Your task to perform on an android device: Open calendar and show me the third week of next month Image 0: 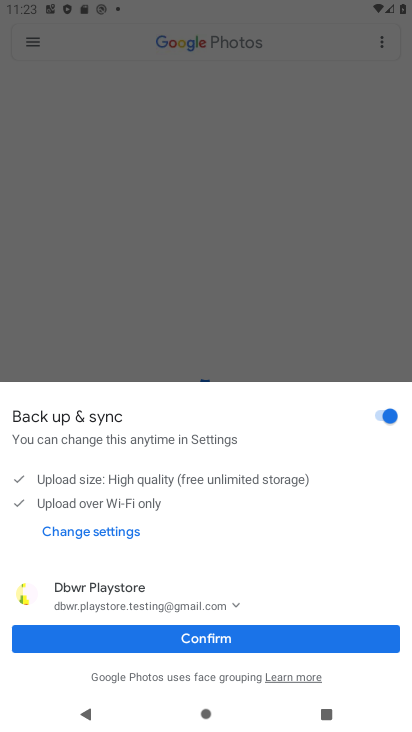
Step 0: press home button
Your task to perform on an android device: Open calendar and show me the third week of next month Image 1: 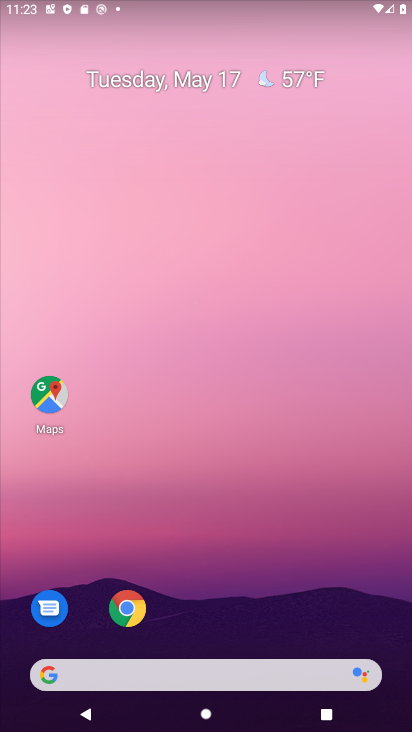
Step 1: drag from (196, 627) to (288, 70)
Your task to perform on an android device: Open calendar and show me the third week of next month Image 2: 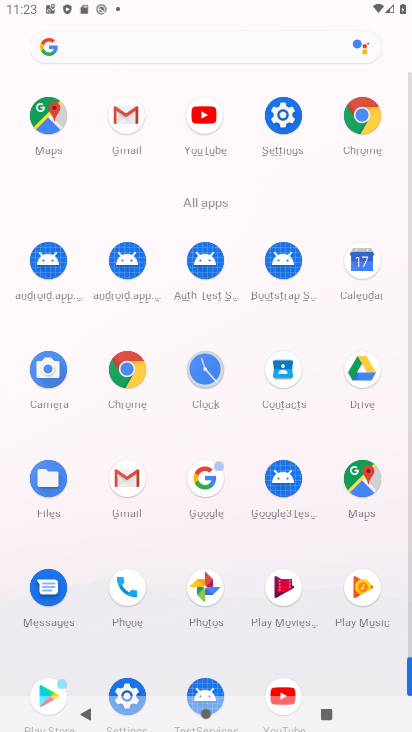
Step 2: click (372, 264)
Your task to perform on an android device: Open calendar and show me the third week of next month Image 3: 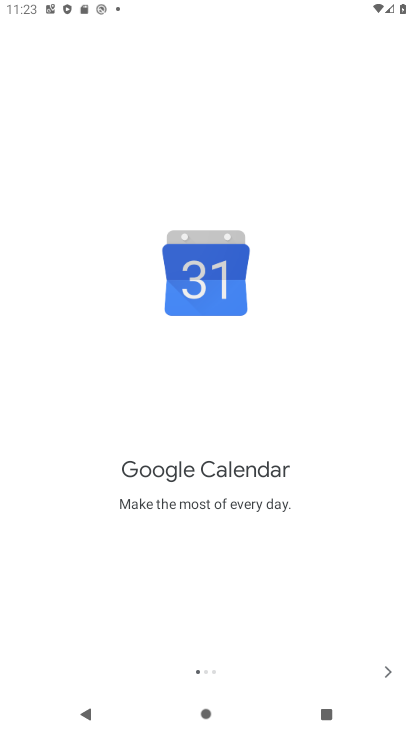
Step 3: click (386, 672)
Your task to perform on an android device: Open calendar and show me the third week of next month Image 4: 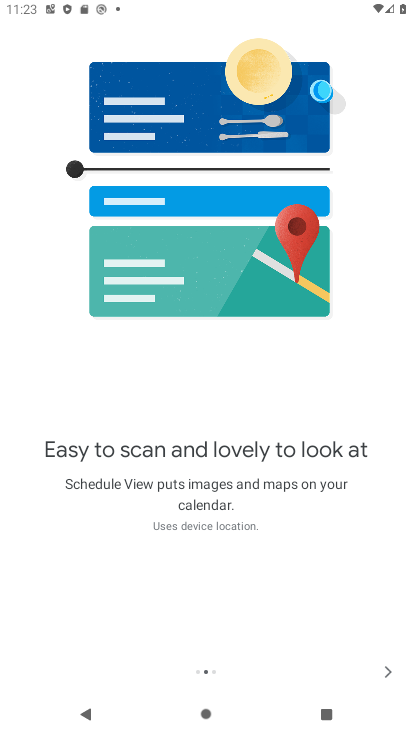
Step 4: click (386, 672)
Your task to perform on an android device: Open calendar and show me the third week of next month Image 5: 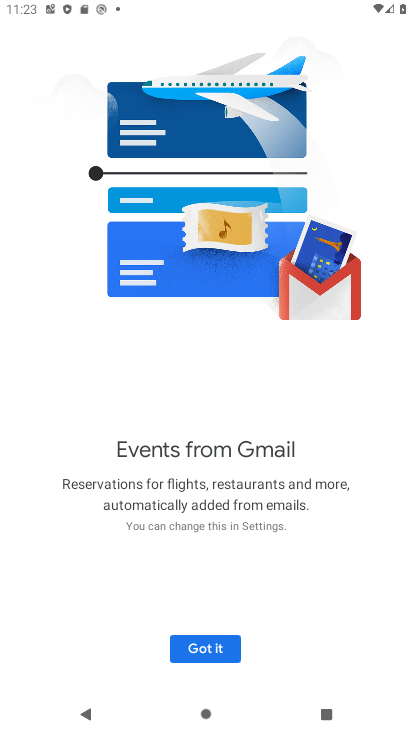
Step 5: click (217, 648)
Your task to perform on an android device: Open calendar and show me the third week of next month Image 6: 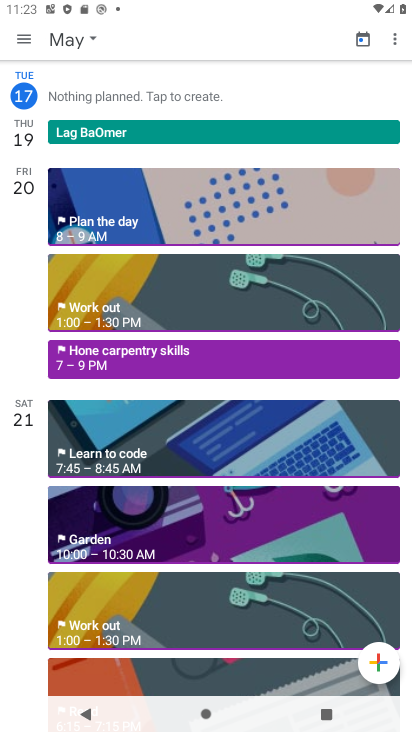
Step 6: click (21, 43)
Your task to perform on an android device: Open calendar and show me the third week of next month Image 7: 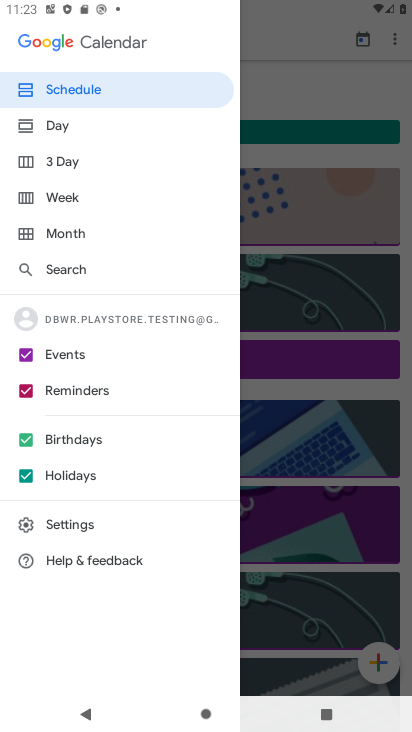
Step 7: click (68, 202)
Your task to perform on an android device: Open calendar and show me the third week of next month Image 8: 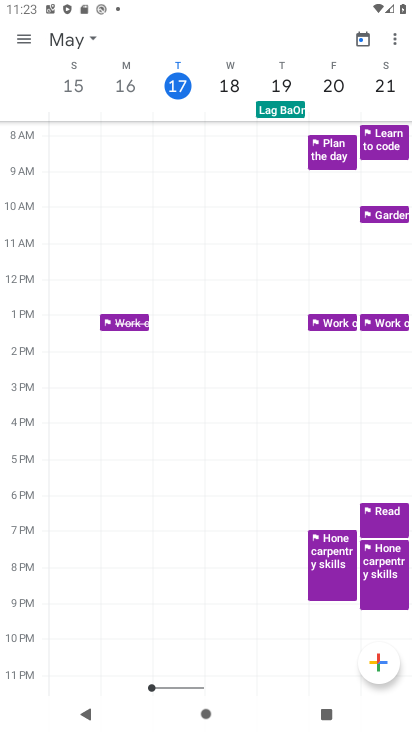
Step 8: task complete